Your task to perform on an android device: See recent photos Image 0: 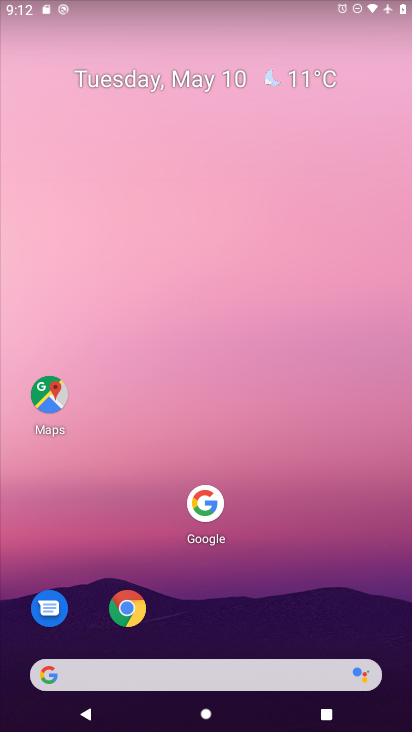
Step 0: drag from (231, 682) to (339, 190)
Your task to perform on an android device: See recent photos Image 1: 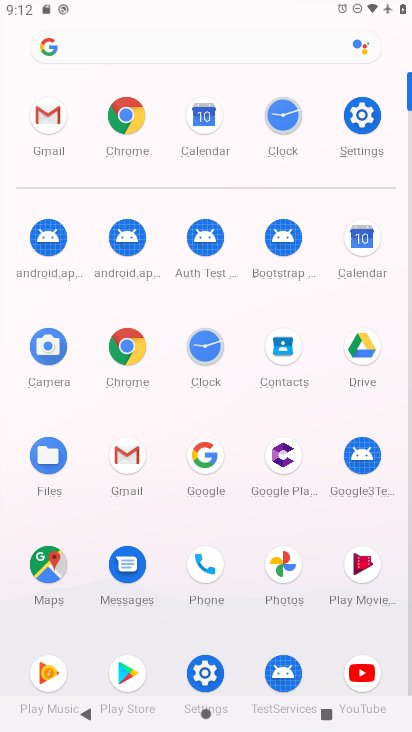
Step 1: click (291, 567)
Your task to perform on an android device: See recent photos Image 2: 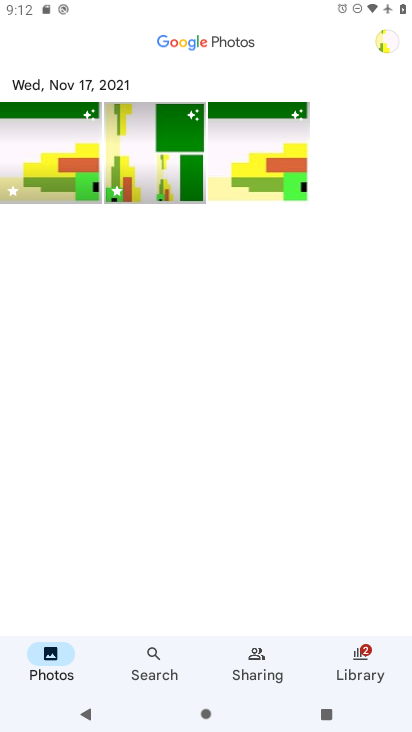
Step 2: click (359, 662)
Your task to perform on an android device: See recent photos Image 3: 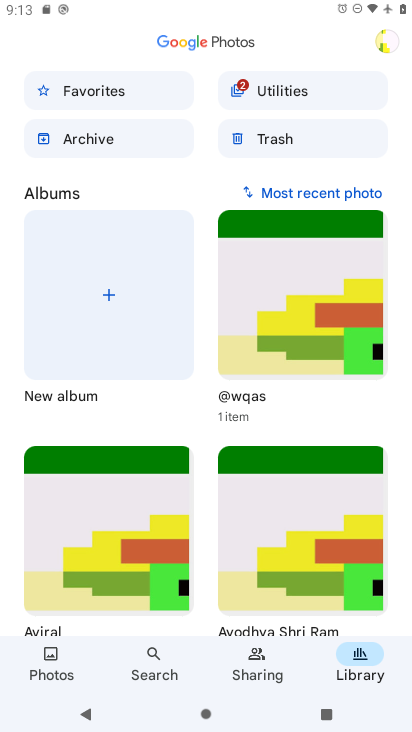
Step 3: task complete